Your task to perform on an android device: Open the contacts Image 0: 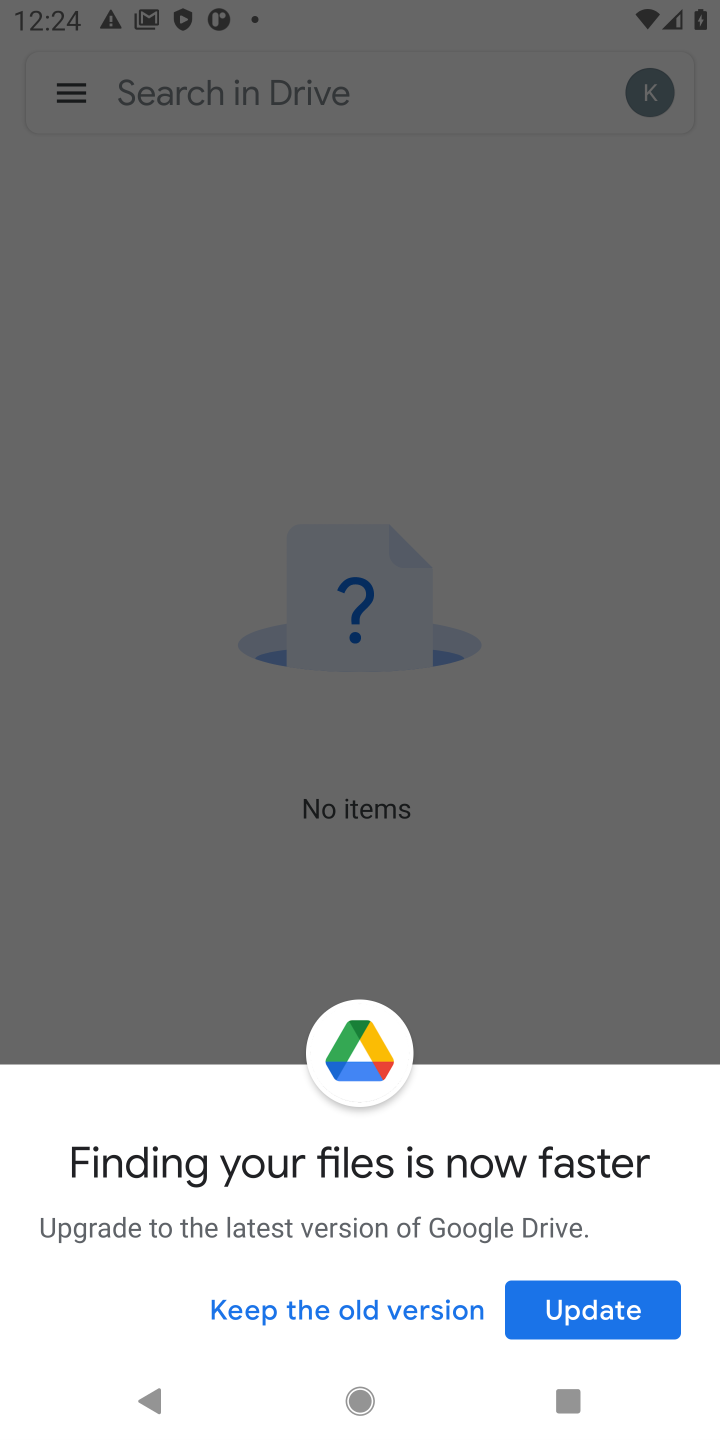
Step 0: press home button
Your task to perform on an android device: Open the contacts Image 1: 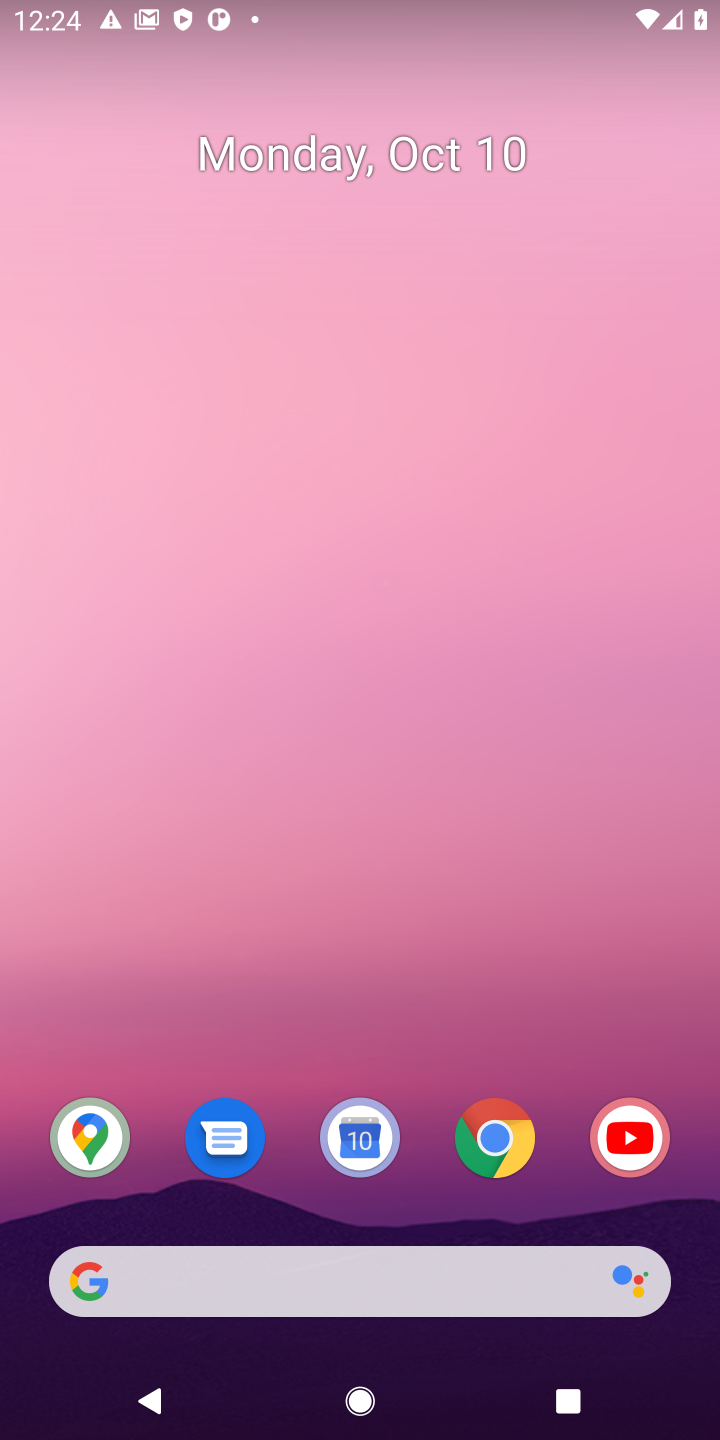
Step 1: drag from (280, 1149) to (262, 250)
Your task to perform on an android device: Open the contacts Image 2: 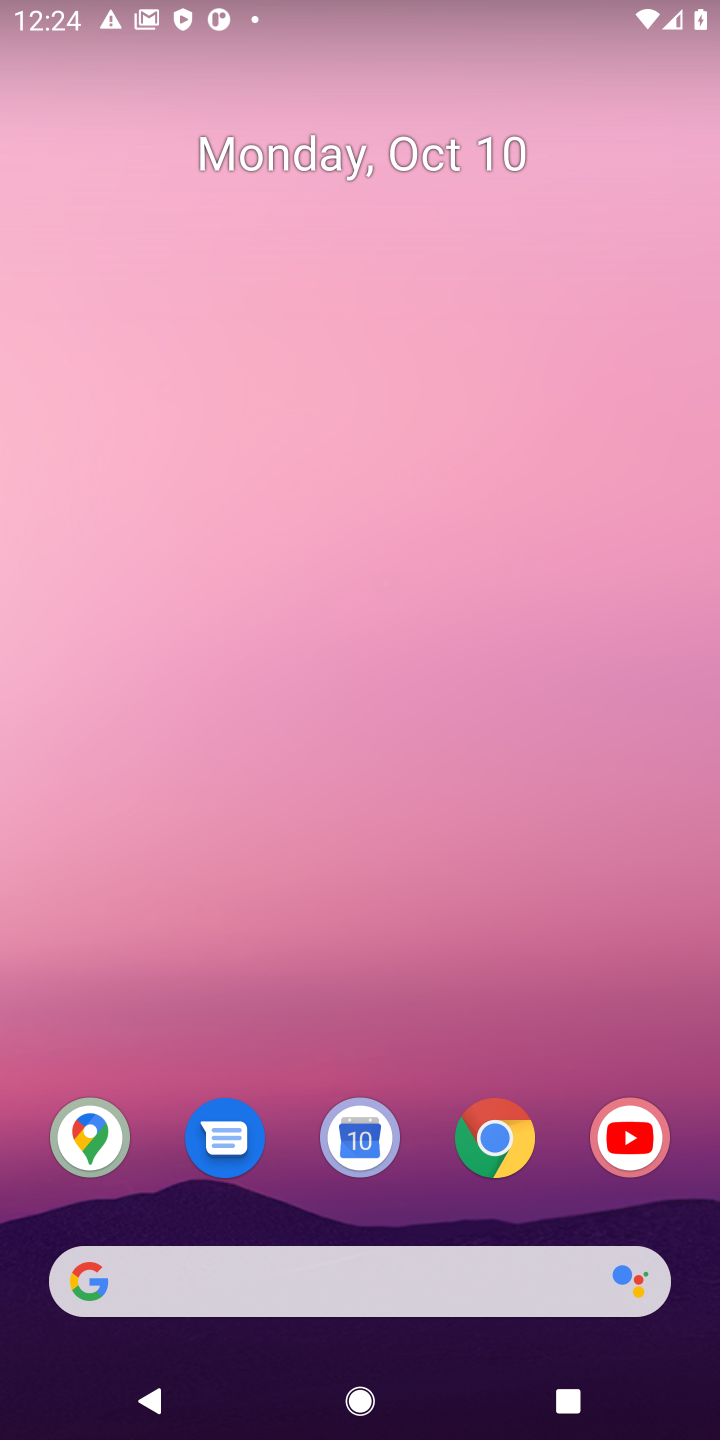
Step 2: drag from (402, 1274) to (336, 41)
Your task to perform on an android device: Open the contacts Image 3: 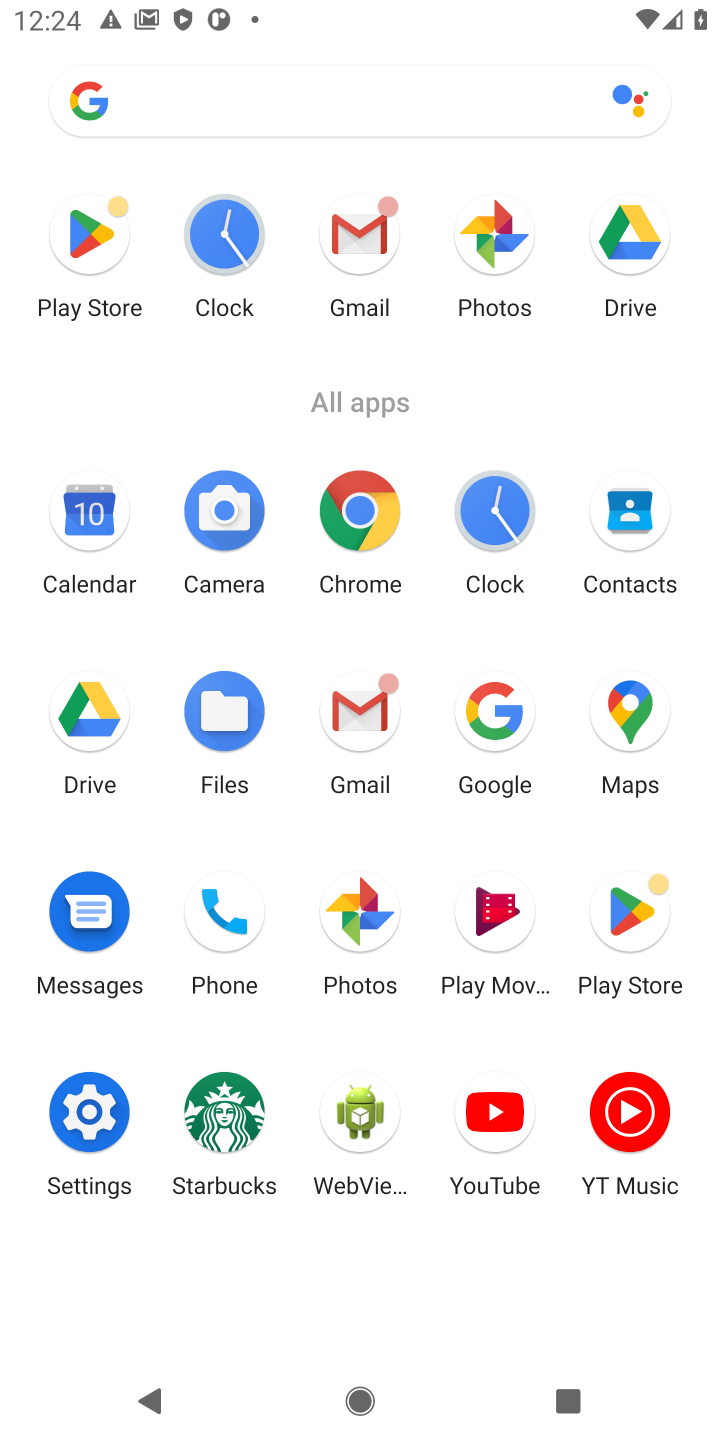
Step 3: click (621, 536)
Your task to perform on an android device: Open the contacts Image 4: 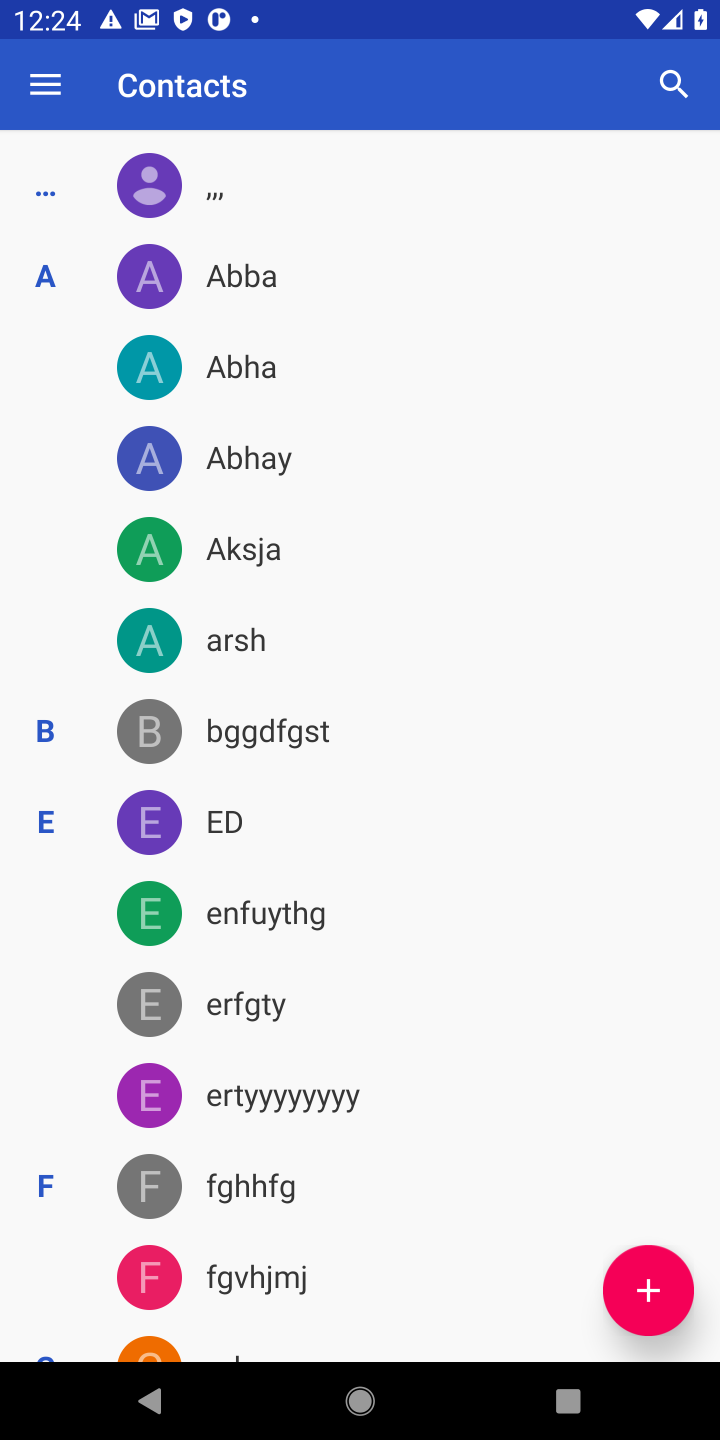
Step 4: task complete